Your task to perform on an android device: Open eBay Image 0: 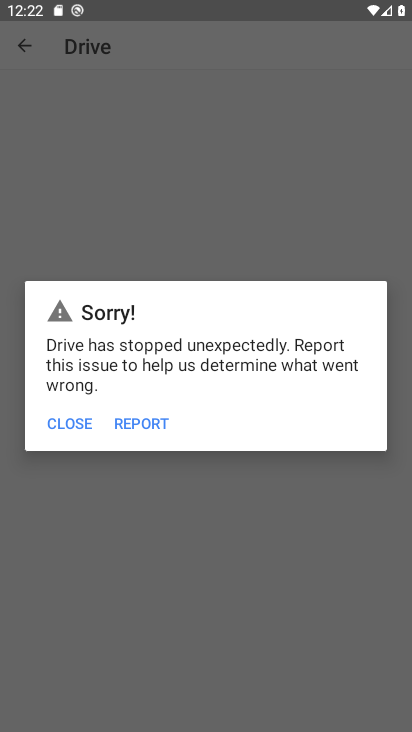
Step 0: press home button
Your task to perform on an android device: Open eBay Image 1: 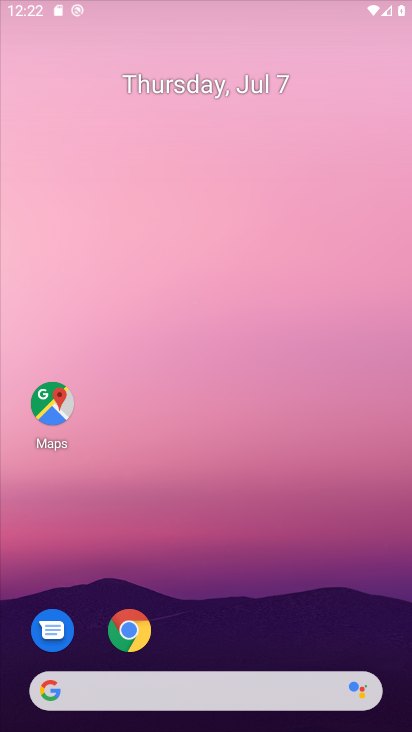
Step 1: drag from (226, 599) to (194, 272)
Your task to perform on an android device: Open eBay Image 2: 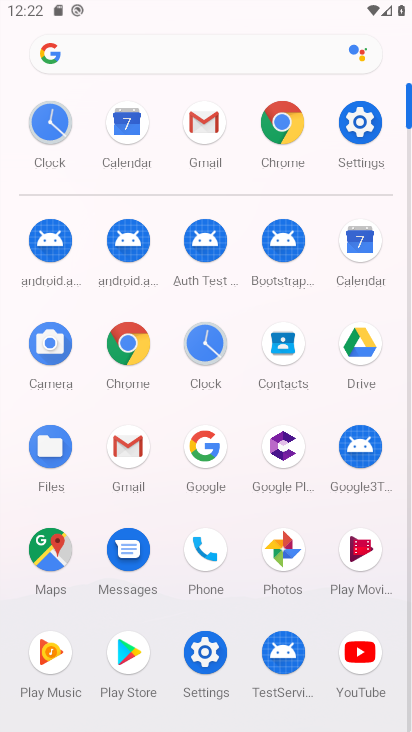
Step 2: click (295, 114)
Your task to perform on an android device: Open eBay Image 3: 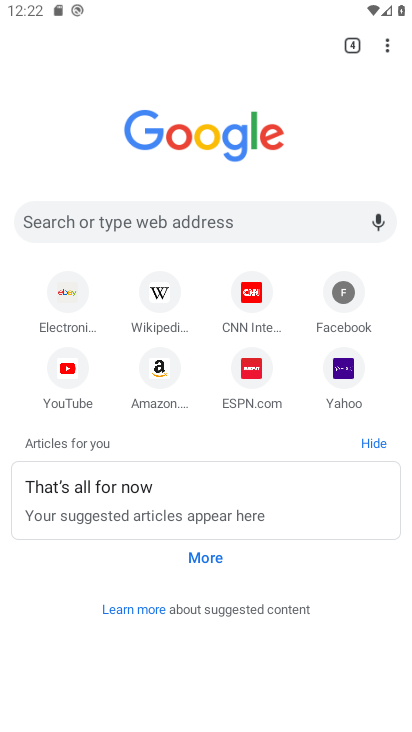
Step 3: click (64, 294)
Your task to perform on an android device: Open eBay Image 4: 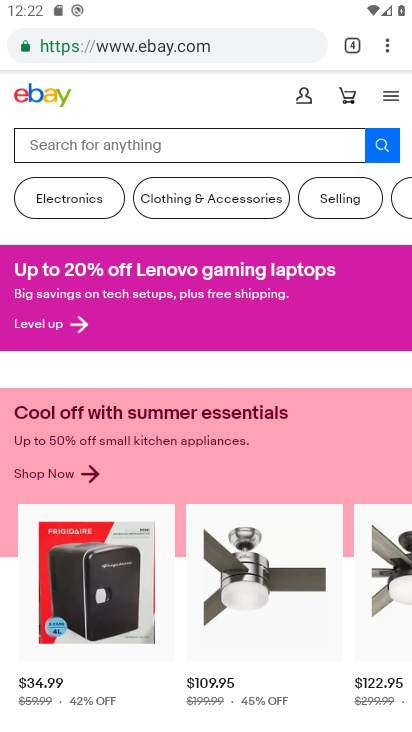
Step 4: task complete